Your task to perform on an android device: turn smart compose on in the gmail app Image 0: 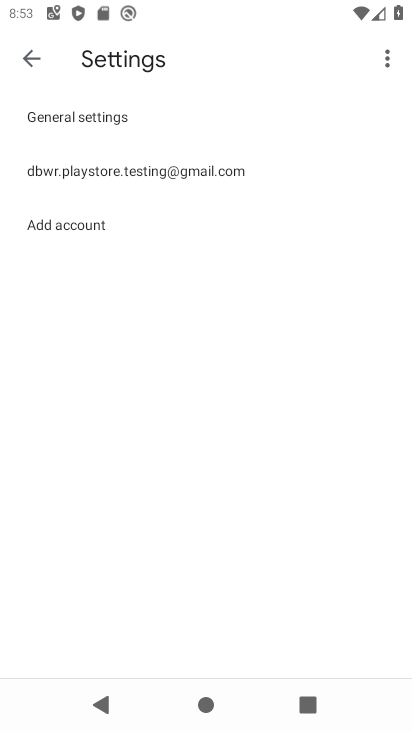
Step 0: press home button
Your task to perform on an android device: turn smart compose on in the gmail app Image 1: 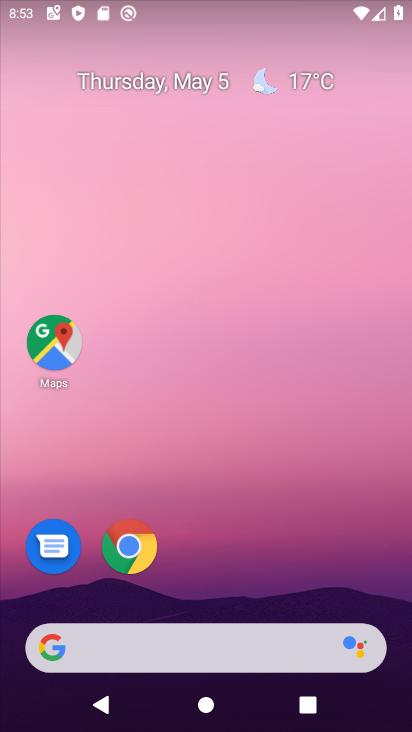
Step 1: drag from (176, 614) to (408, 57)
Your task to perform on an android device: turn smart compose on in the gmail app Image 2: 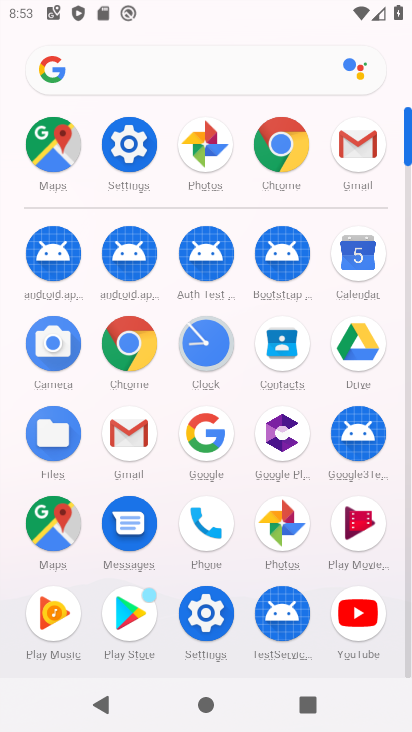
Step 2: click (348, 150)
Your task to perform on an android device: turn smart compose on in the gmail app Image 3: 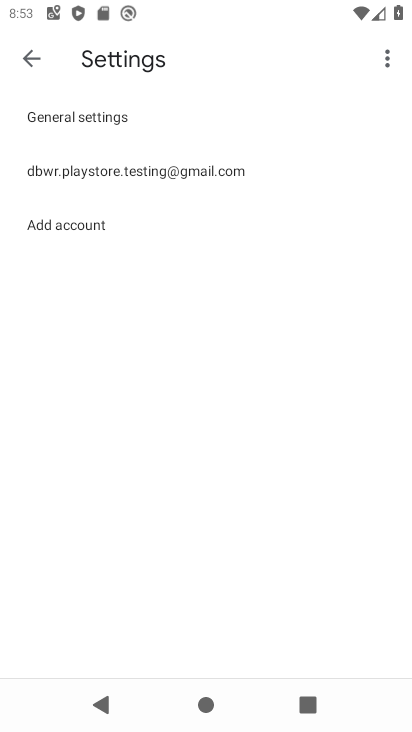
Step 3: click (210, 166)
Your task to perform on an android device: turn smart compose on in the gmail app Image 4: 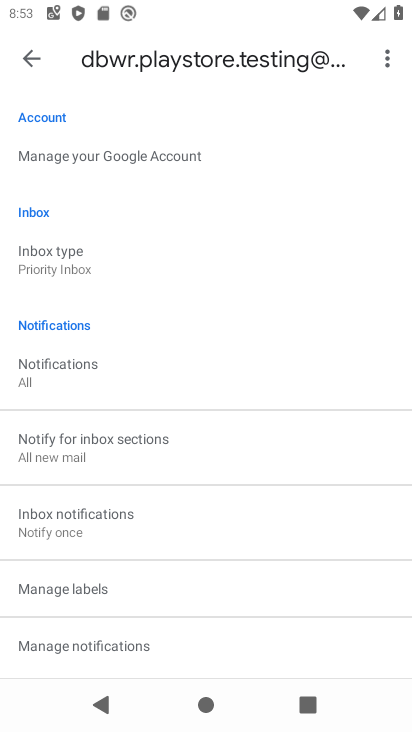
Step 4: task complete